Your task to perform on an android device: open wifi settings Image 0: 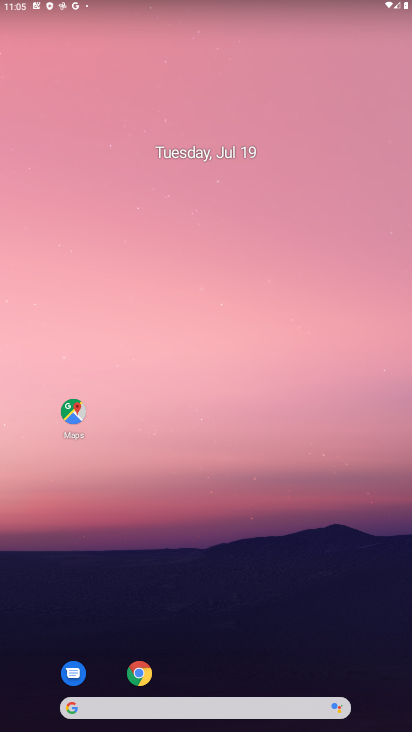
Step 0: drag from (254, 661) to (207, 143)
Your task to perform on an android device: open wifi settings Image 1: 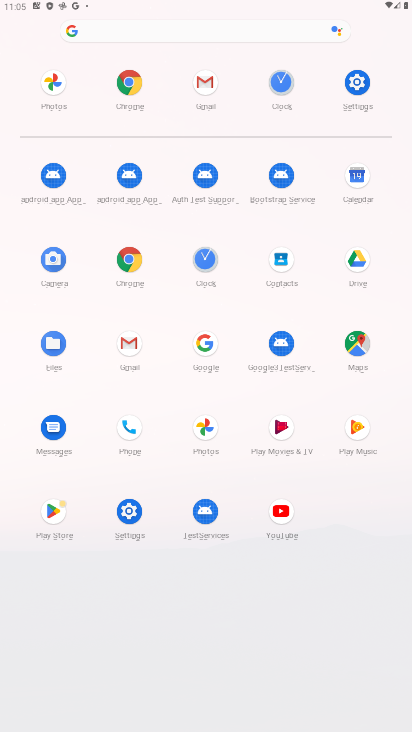
Step 1: click (347, 91)
Your task to perform on an android device: open wifi settings Image 2: 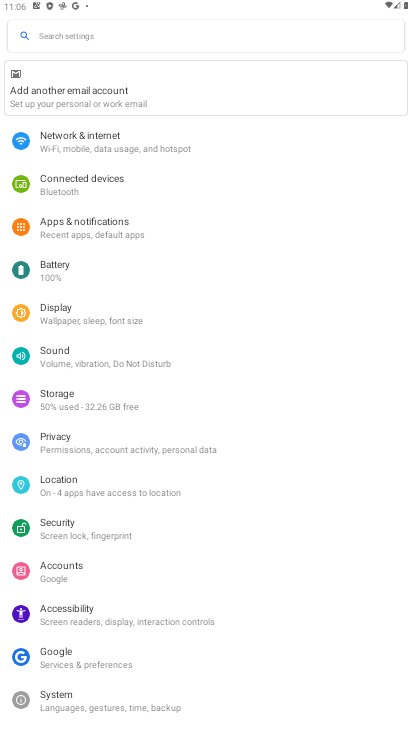
Step 2: click (119, 144)
Your task to perform on an android device: open wifi settings Image 3: 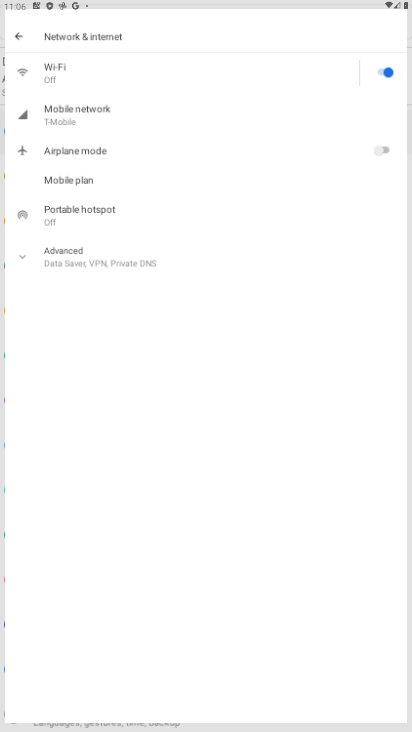
Step 3: task complete